Your task to perform on an android device: Open Youtube and go to "Your channel" Image 0: 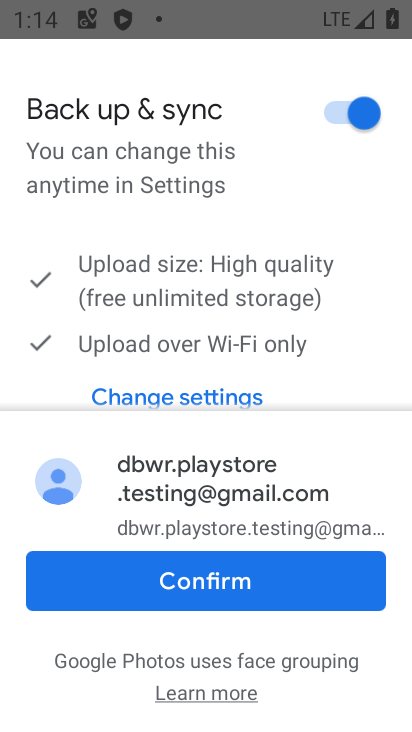
Step 0: press home button
Your task to perform on an android device: Open Youtube and go to "Your channel" Image 1: 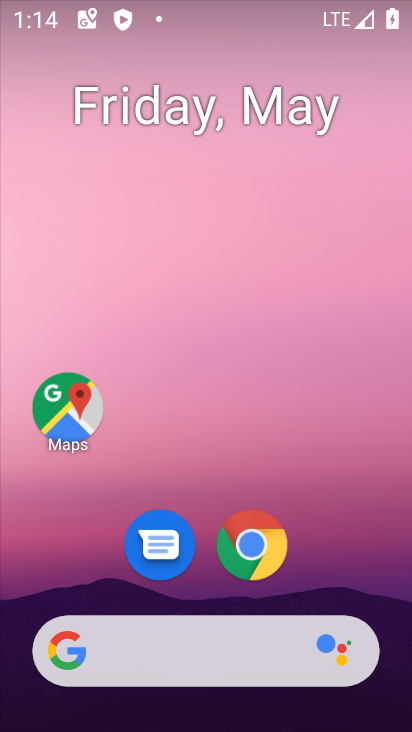
Step 1: drag from (358, 556) to (277, 1)
Your task to perform on an android device: Open Youtube and go to "Your channel" Image 2: 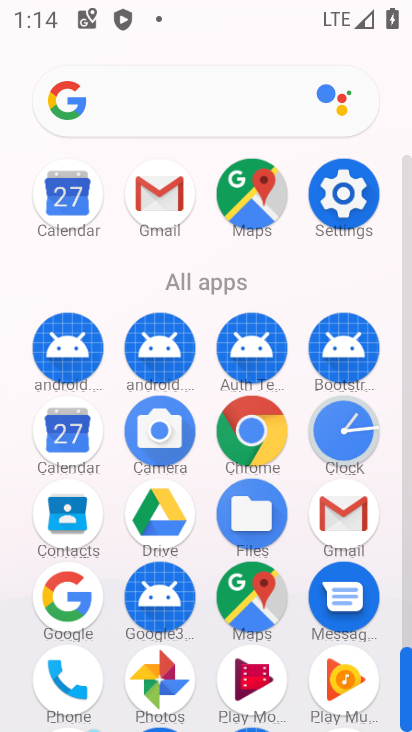
Step 2: drag from (307, 636) to (269, 179)
Your task to perform on an android device: Open Youtube and go to "Your channel" Image 3: 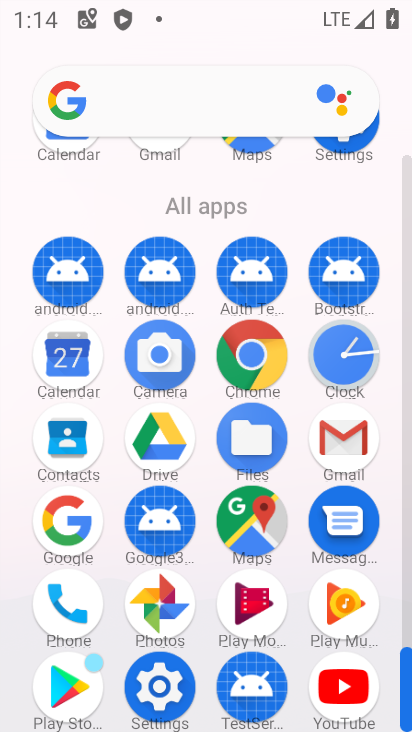
Step 3: click (349, 681)
Your task to perform on an android device: Open Youtube and go to "Your channel" Image 4: 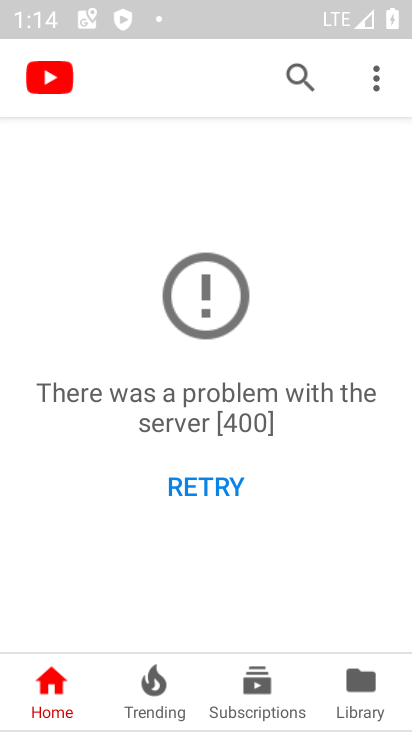
Step 4: click (375, 73)
Your task to perform on an android device: Open Youtube and go to "Your channel" Image 5: 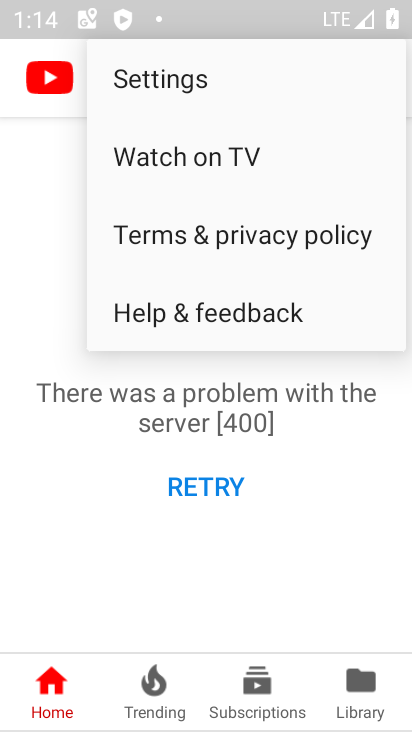
Step 5: click (311, 486)
Your task to perform on an android device: Open Youtube and go to "Your channel" Image 6: 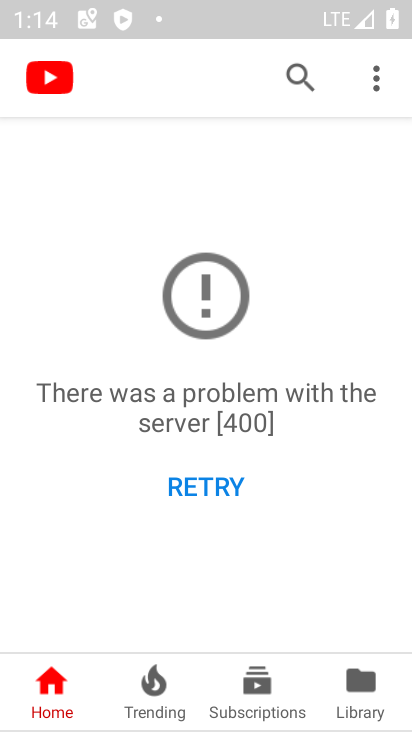
Step 6: task complete